Your task to perform on an android device: turn on the 24-hour format for clock Image 0: 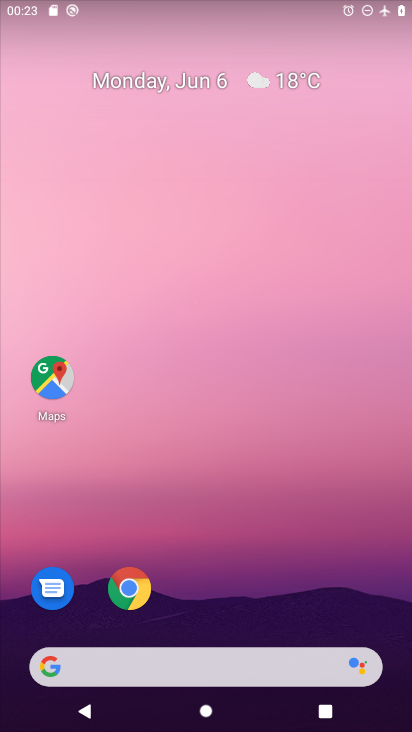
Step 0: drag from (351, 611) to (344, 233)
Your task to perform on an android device: turn on the 24-hour format for clock Image 1: 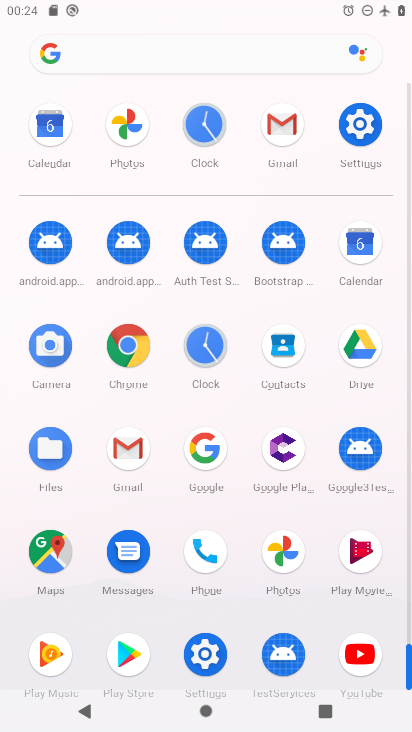
Step 1: click (208, 348)
Your task to perform on an android device: turn on the 24-hour format for clock Image 2: 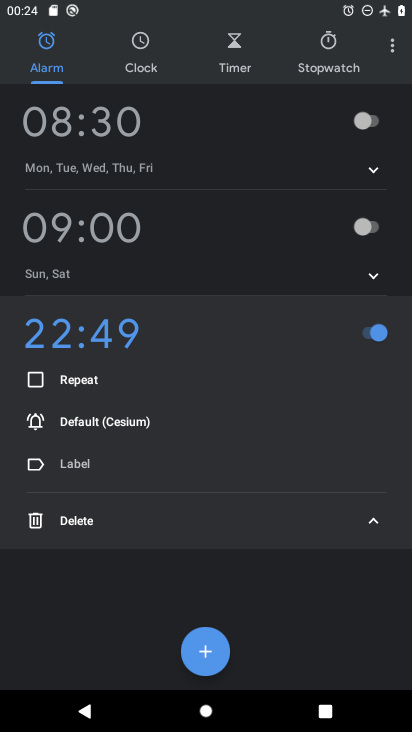
Step 2: click (392, 57)
Your task to perform on an android device: turn on the 24-hour format for clock Image 3: 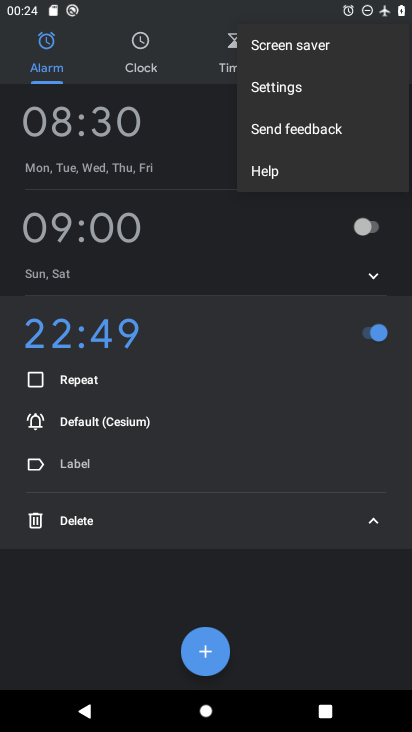
Step 3: click (296, 86)
Your task to perform on an android device: turn on the 24-hour format for clock Image 4: 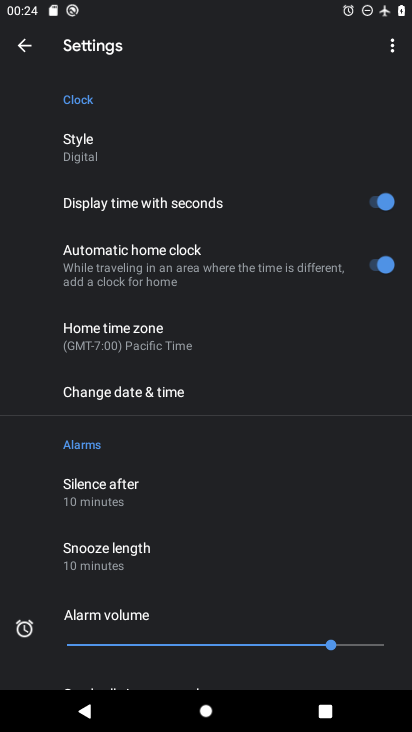
Step 4: drag from (295, 457) to (298, 342)
Your task to perform on an android device: turn on the 24-hour format for clock Image 5: 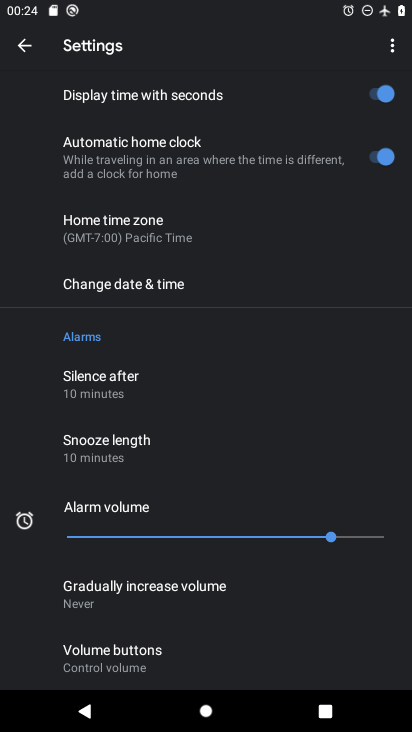
Step 5: drag from (303, 462) to (303, 372)
Your task to perform on an android device: turn on the 24-hour format for clock Image 6: 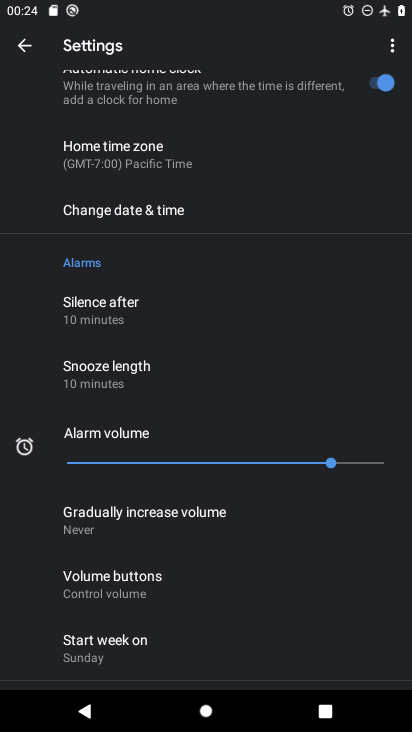
Step 6: drag from (304, 520) to (304, 411)
Your task to perform on an android device: turn on the 24-hour format for clock Image 7: 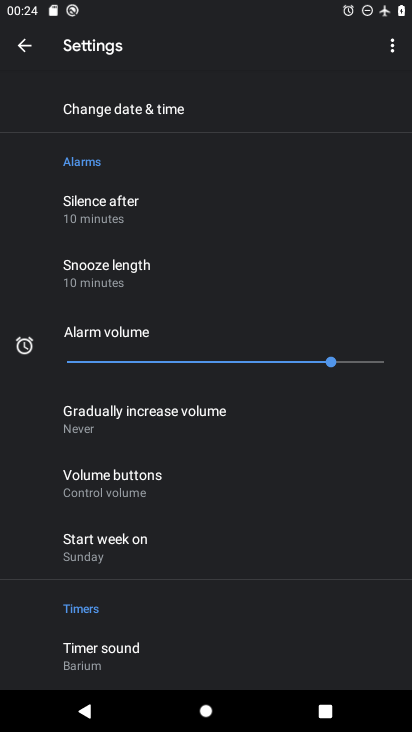
Step 7: drag from (314, 504) to (317, 461)
Your task to perform on an android device: turn on the 24-hour format for clock Image 8: 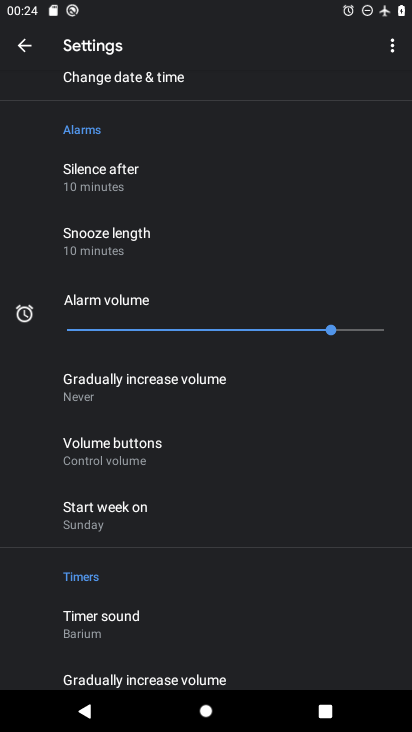
Step 8: drag from (320, 482) to (321, 369)
Your task to perform on an android device: turn on the 24-hour format for clock Image 9: 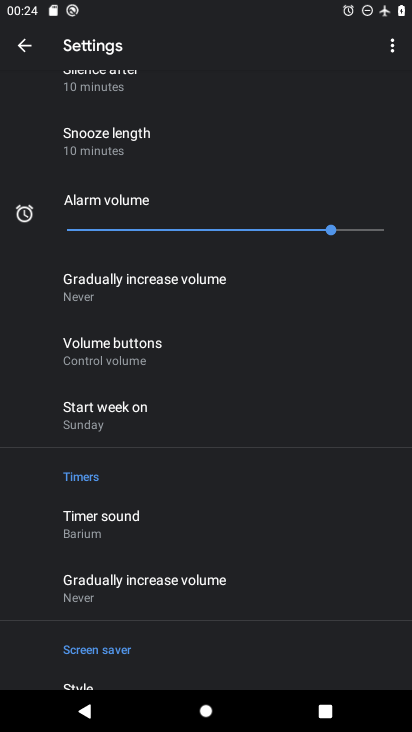
Step 9: drag from (315, 499) to (315, 378)
Your task to perform on an android device: turn on the 24-hour format for clock Image 10: 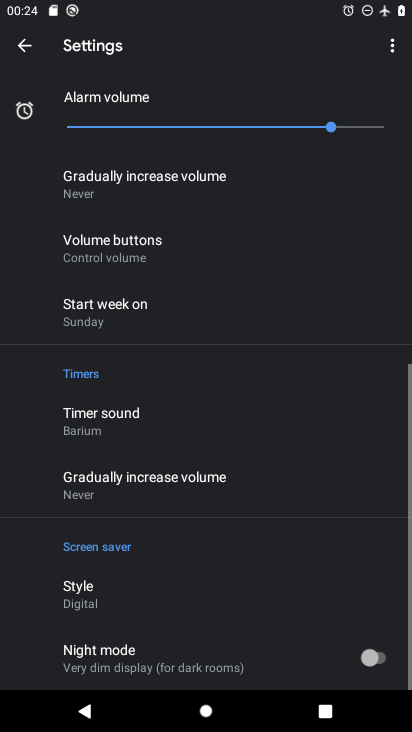
Step 10: drag from (315, 271) to (313, 386)
Your task to perform on an android device: turn on the 24-hour format for clock Image 11: 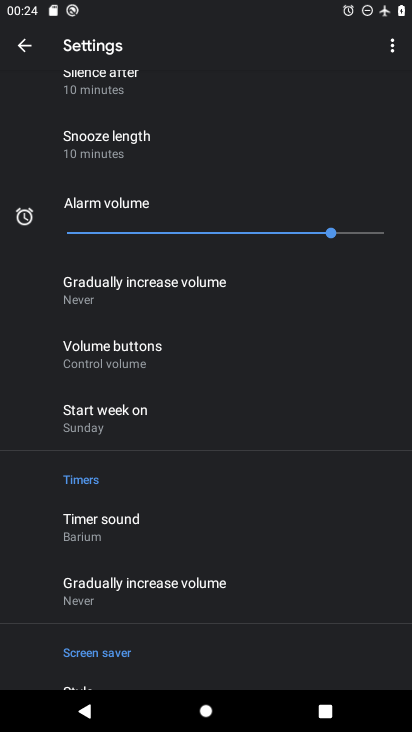
Step 11: drag from (316, 187) to (316, 292)
Your task to perform on an android device: turn on the 24-hour format for clock Image 12: 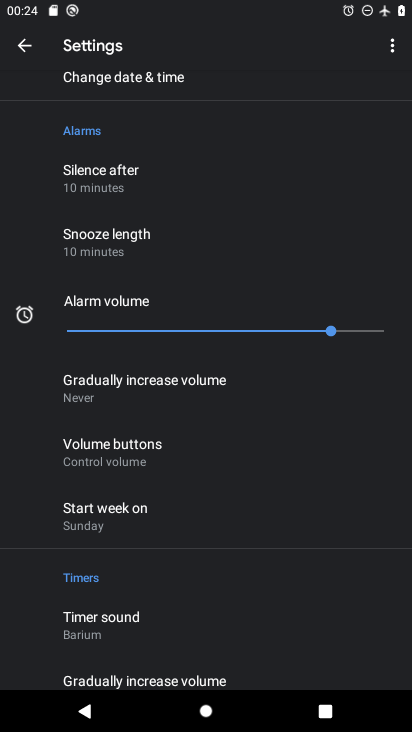
Step 12: drag from (324, 195) to (324, 312)
Your task to perform on an android device: turn on the 24-hour format for clock Image 13: 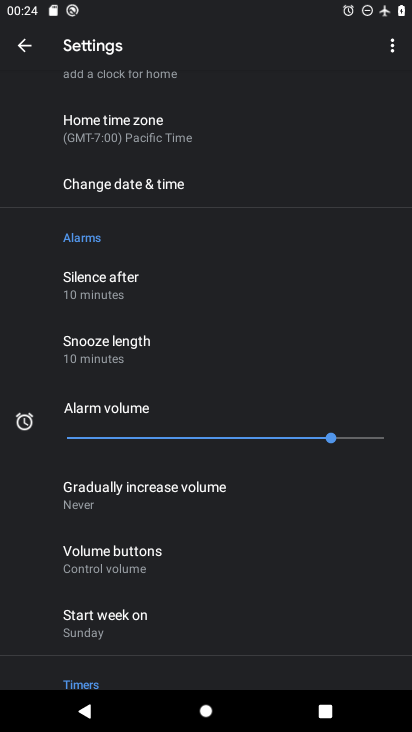
Step 13: click (234, 200)
Your task to perform on an android device: turn on the 24-hour format for clock Image 14: 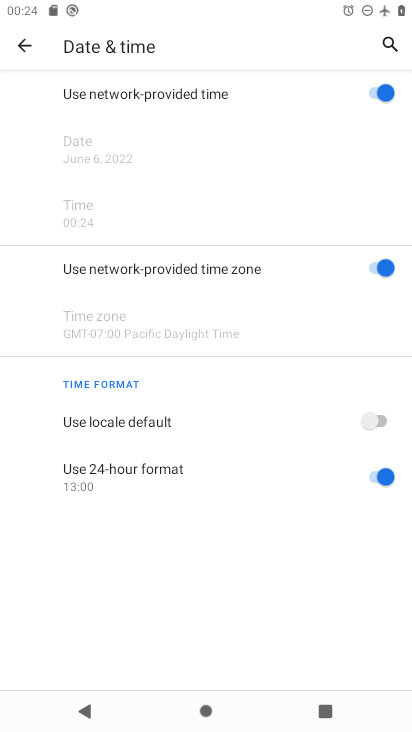
Step 14: task complete